Your task to perform on an android device: Go to Google maps Image 0: 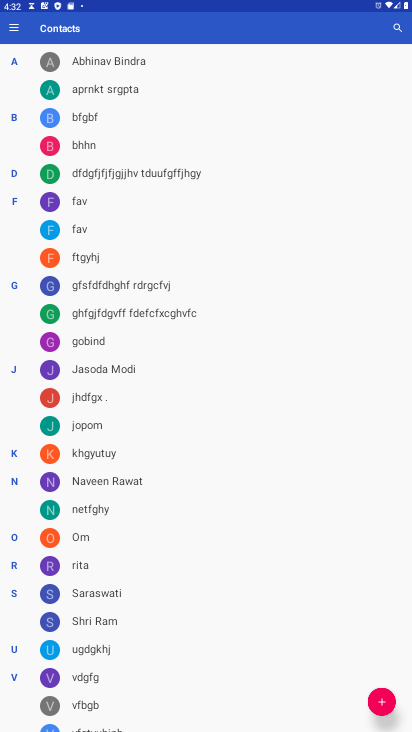
Step 0: press home button
Your task to perform on an android device: Go to Google maps Image 1: 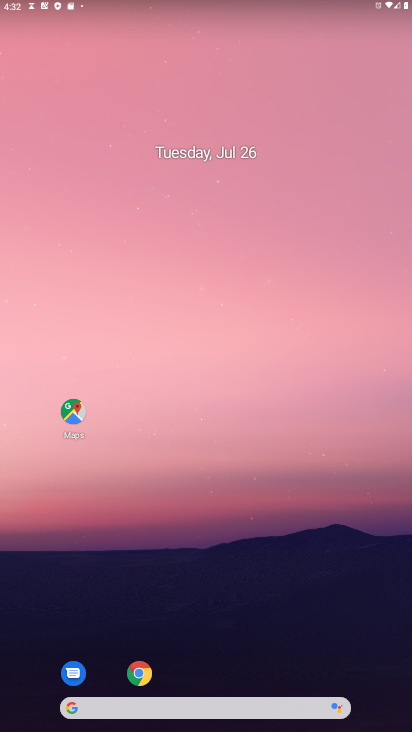
Step 1: click (71, 410)
Your task to perform on an android device: Go to Google maps Image 2: 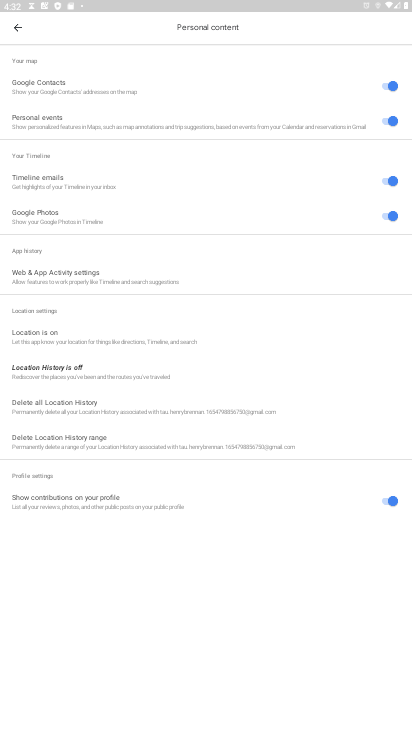
Step 2: task complete